Your task to perform on an android device: Go to network settings Image 0: 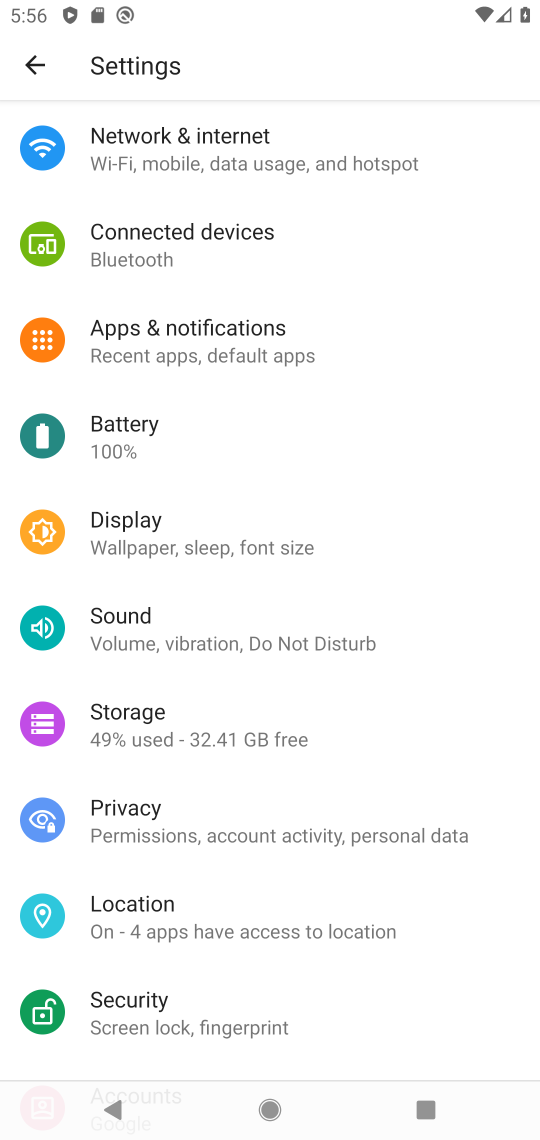
Step 0: drag from (240, 716) to (187, 956)
Your task to perform on an android device: Go to network settings Image 1: 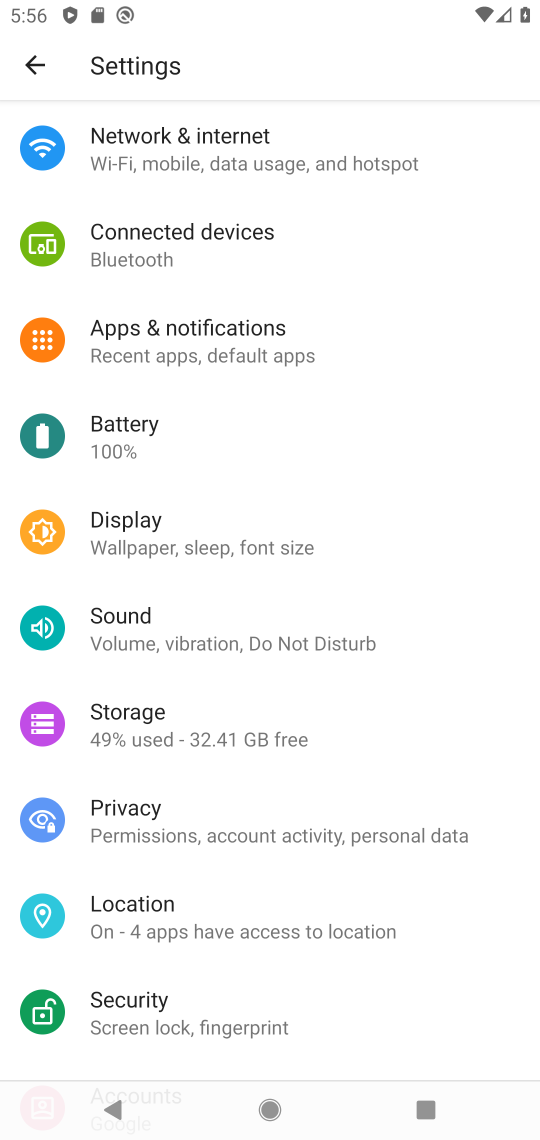
Step 1: click (393, 167)
Your task to perform on an android device: Go to network settings Image 2: 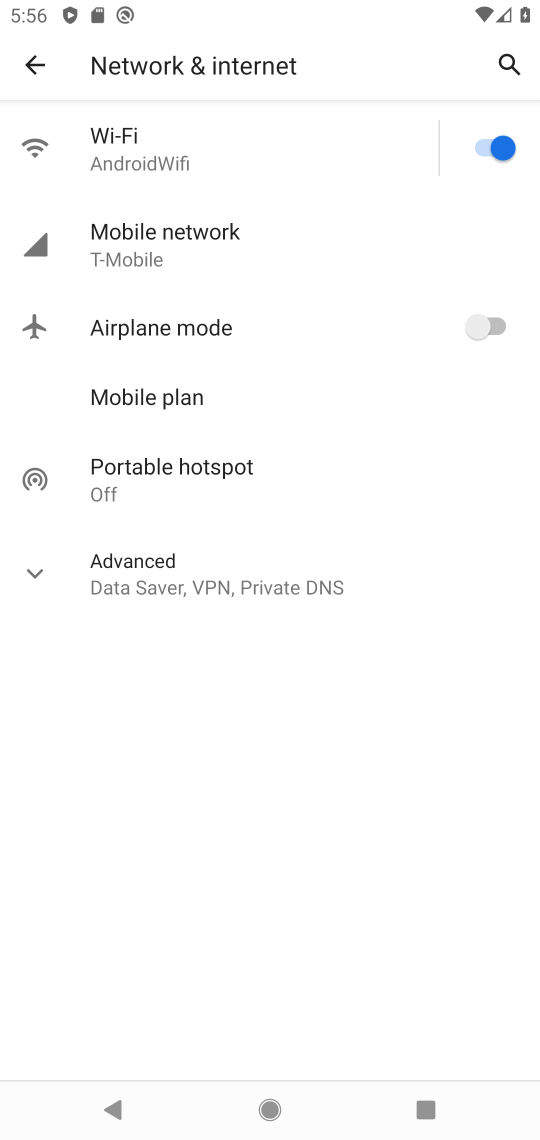
Step 2: task complete